Your task to perform on an android device: turn off wifi Image 0: 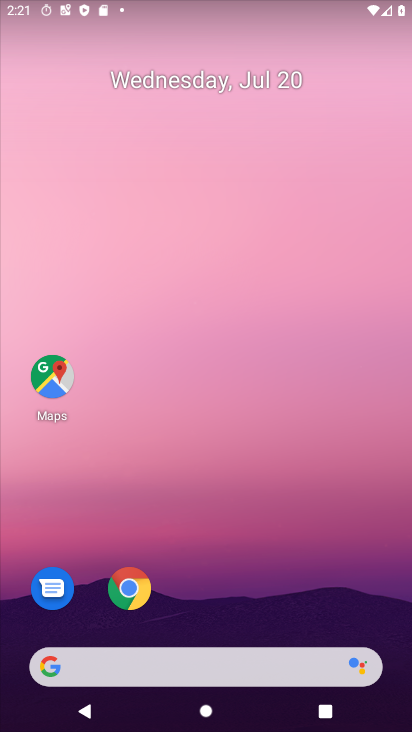
Step 0: drag from (251, 586) to (274, 64)
Your task to perform on an android device: turn off wifi Image 1: 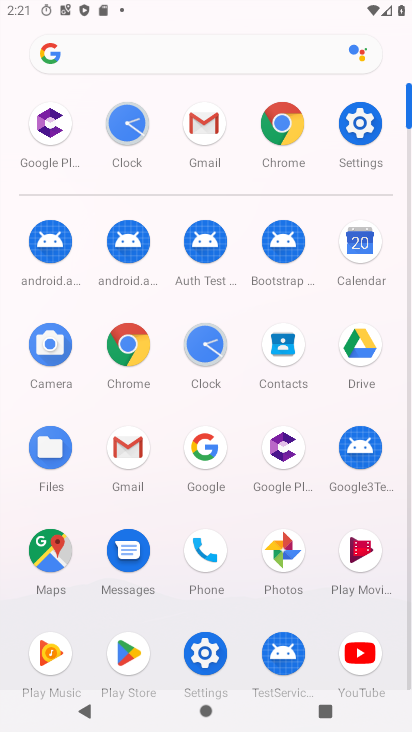
Step 1: click (358, 133)
Your task to perform on an android device: turn off wifi Image 2: 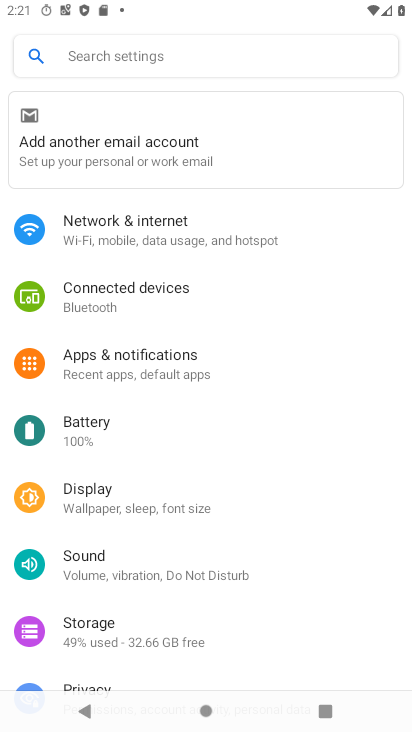
Step 2: click (93, 223)
Your task to perform on an android device: turn off wifi Image 3: 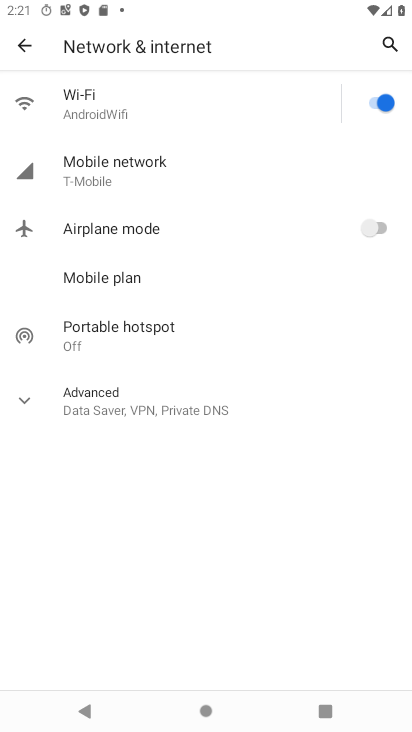
Step 3: click (381, 114)
Your task to perform on an android device: turn off wifi Image 4: 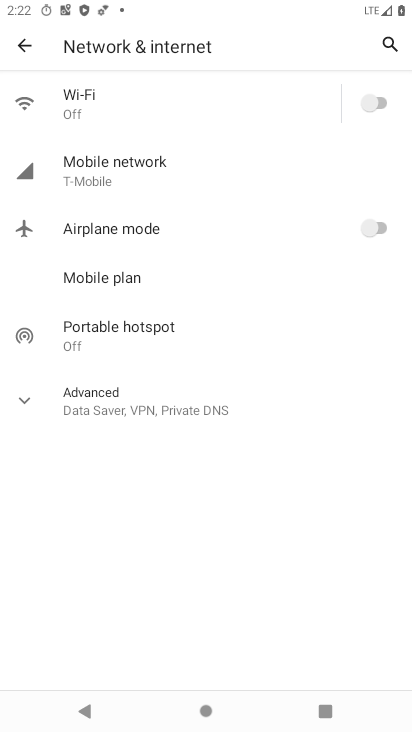
Step 4: task complete